Your task to perform on an android device: Search for sushi restaurants on Maps Image 0: 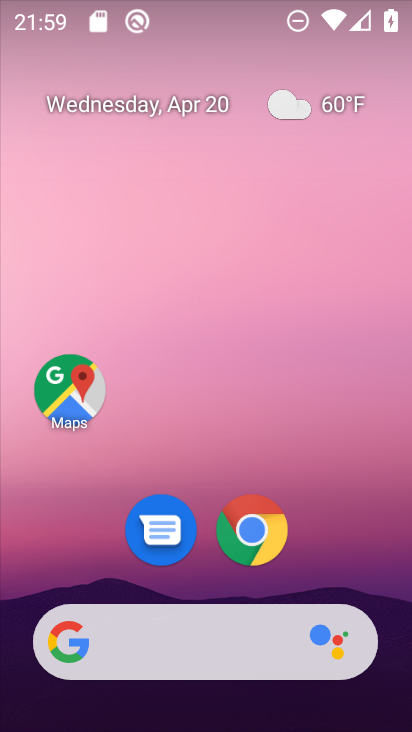
Step 0: click (63, 391)
Your task to perform on an android device: Search for sushi restaurants on Maps Image 1: 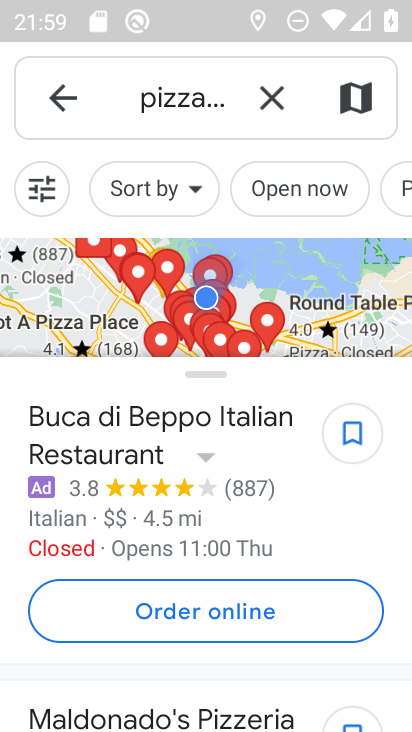
Step 1: click (267, 91)
Your task to perform on an android device: Search for sushi restaurants on Maps Image 2: 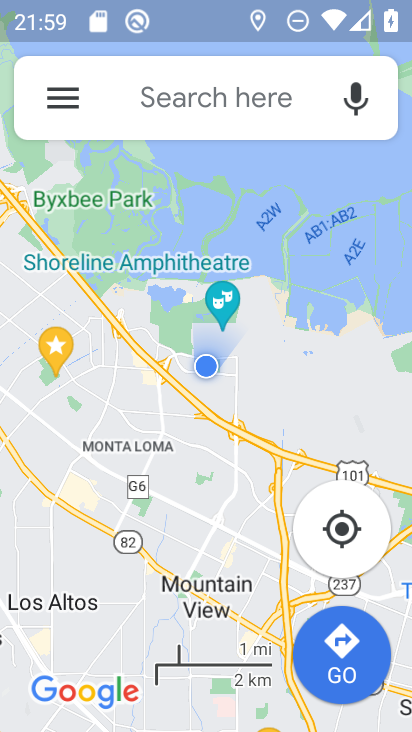
Step 2: click (267, 89)
Your task to perform on an android device: Search for sushi restaurants on Maps Image 3: 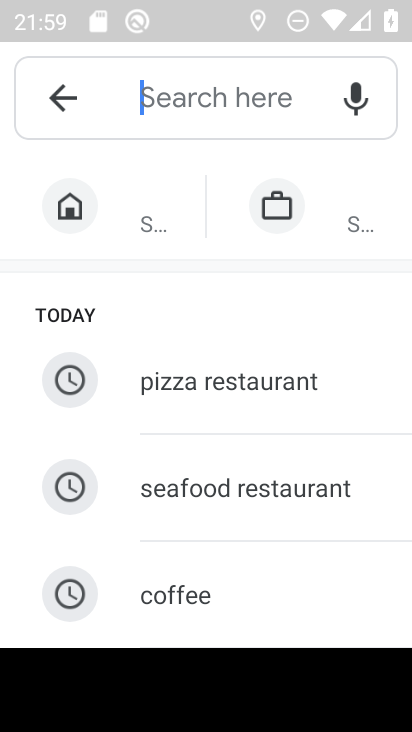
Step 3: drag from (244, 521) to (358, 301)
Your task to perform on an android device: Search for sushi restaurants on Maps Image 4: 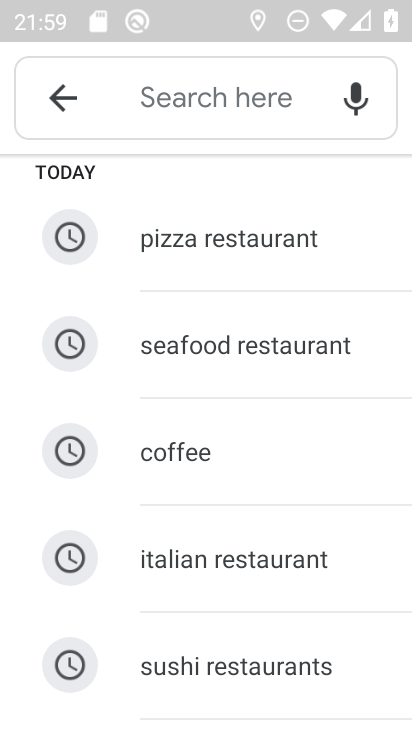
Step 4: click (221, 648)
Your task to perform on an android device: Search for sushi restaurants on Maps Image 5: 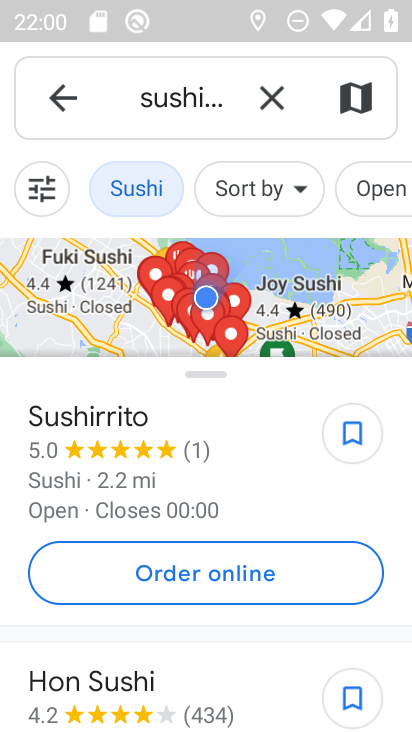
Step 5: task complete